Your task to perform on an android device: change notification settings in the gmail app Image 0: 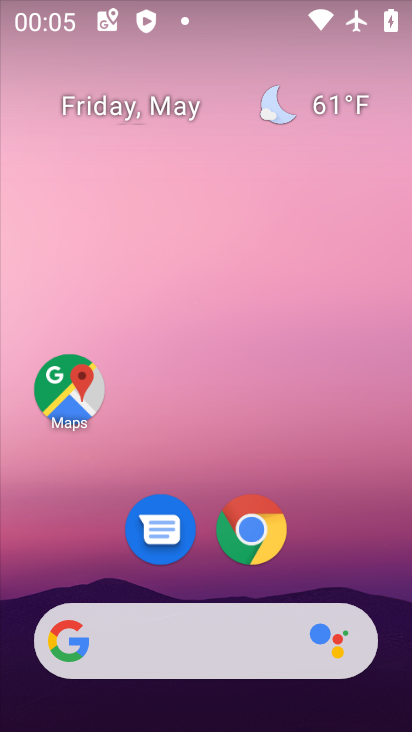
Step 0: drag from (352, 553) to (326, 166)
Your task to perform on an android device: change notification settings in the gmail app Image 1: 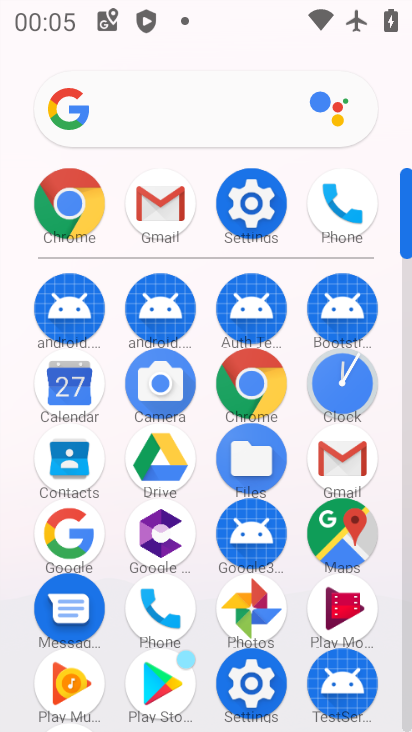
Step 1: click (160, 228)
Your task to perform on an android device: change notification settings in the gmail app Image 2: 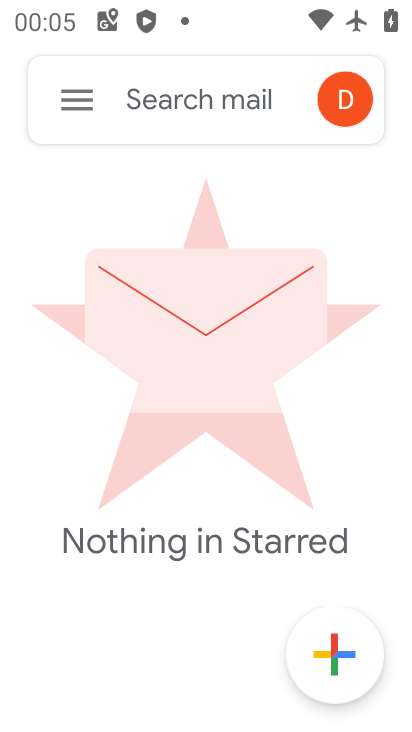
Step 2: click (69, 110)
Your task to perform on an android device: change notification settings in the gmail app Image 3: 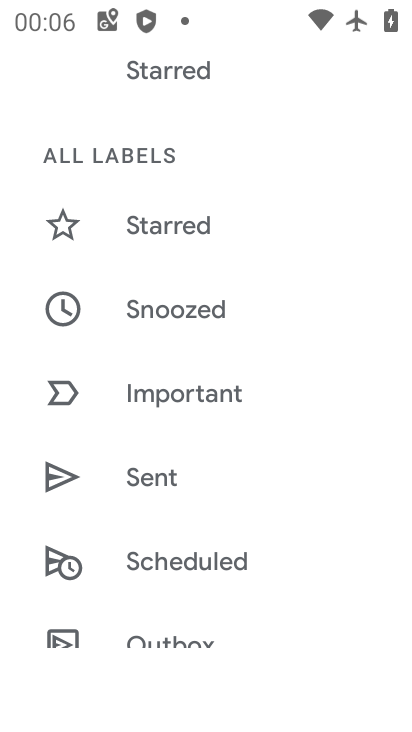
Step 3: drag from (164, 588) to (159, 93)
Your task to perform on an android device: change notification settings in the gmail app Image 4: 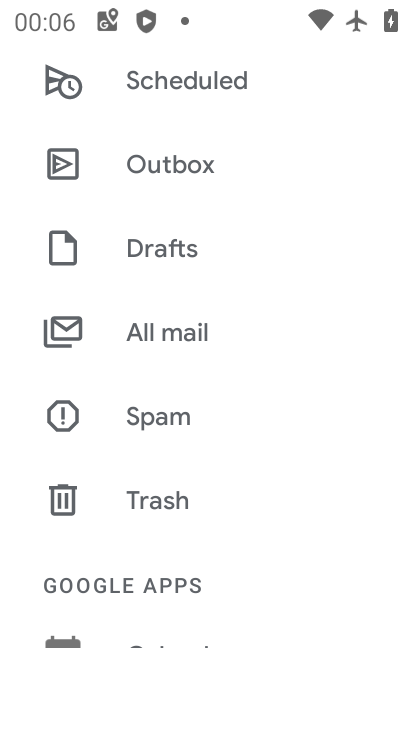
Step 4: drag from (212, 527) to (214, 202)
Your task to perform on an android device: change notification settings in the gmail app Image 5: 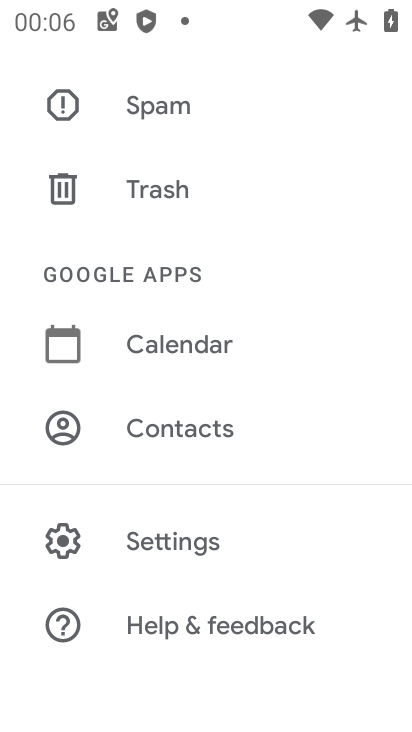
Step 5: click (234, 551)
Your task to perform on an android device: change notification settings in the gmail app Image 6: 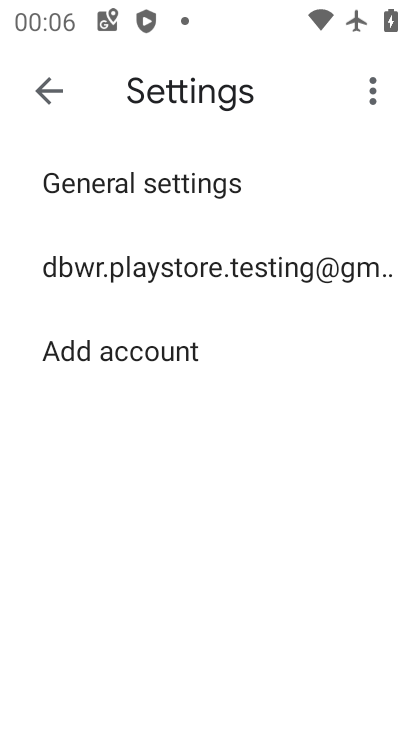
Step 6: click (107, 200)
Your task to perform on an android device: change notification settings in the gmail app Image 7: 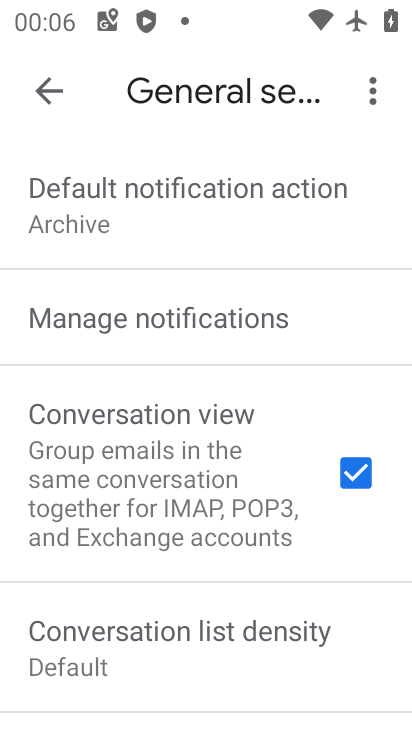
Step 7: click (200, 339)
Your task to perform on an android device: change notification settings in the gmail app Image 8: 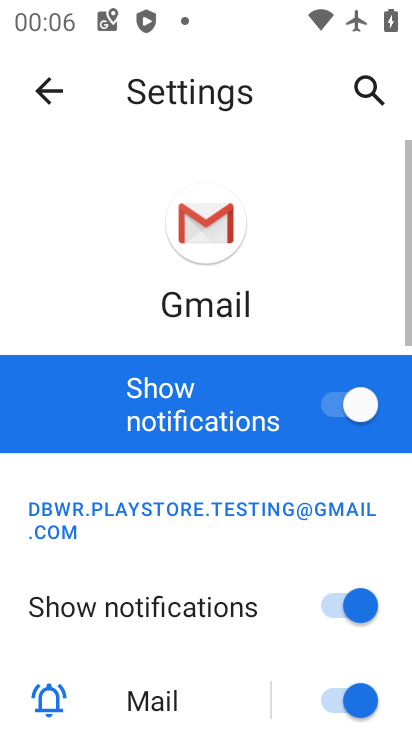
Step 8: click (324, 419)
Your task to perform on an android device: change notification settings in the gmail app Image 9: 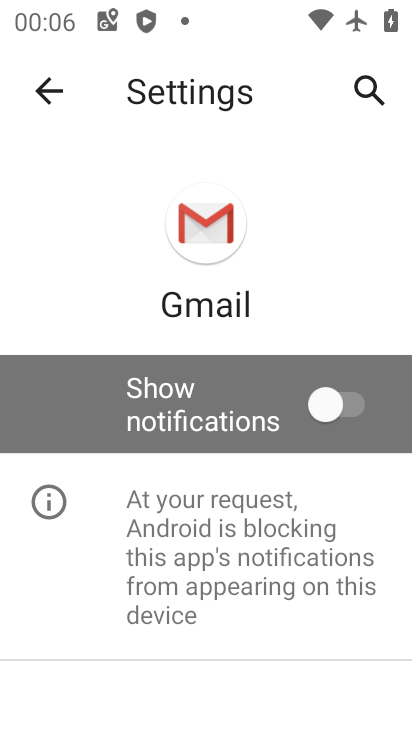
Step 9: task complete